Your task to perform on an android device: Open display settings Image 0: 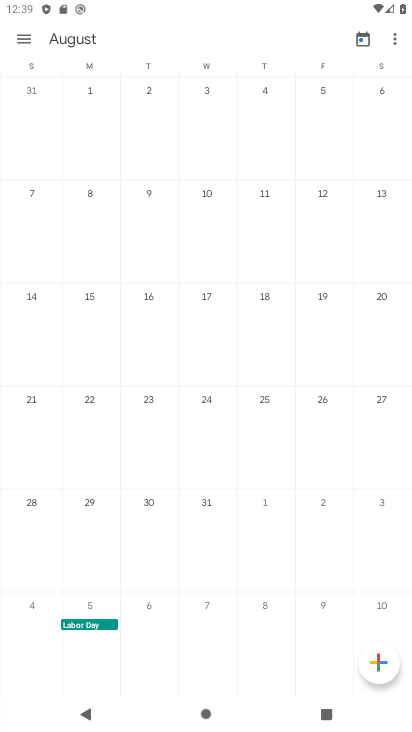
Step 0: press home button
Your task to perform on an android device: Open display settings Image 1: 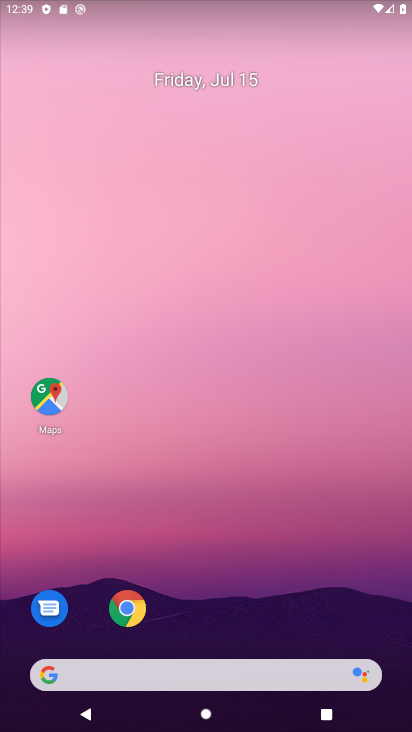
Step 1: drag from (224, 666) to (264, 156)
Your task to perform on an android device: Open display settings Image 2: 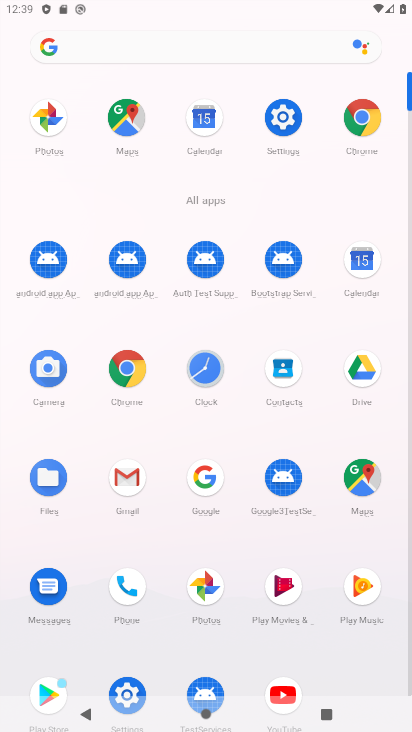
Step 2: click (289, 120)
Your task to perform on an android device: Open display settings Image 3: 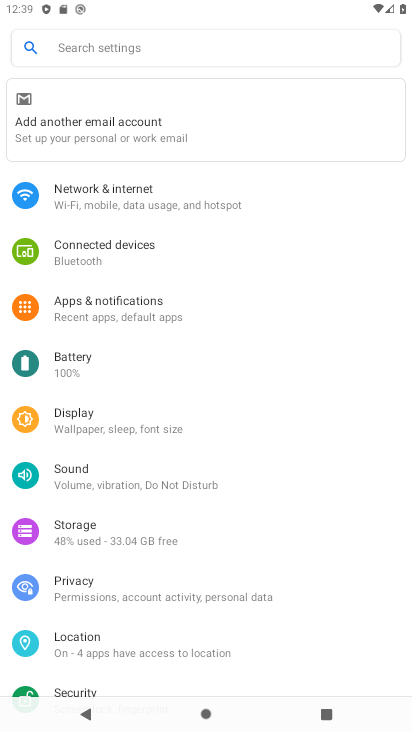
Step 3: click (82, 418)
Your task to perform on an android device: Open display settings Image 4: 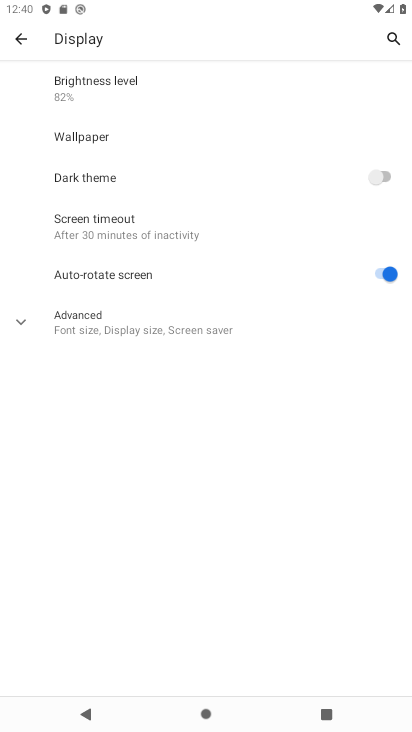
Step 4: task complete